Your task to perform on an android device: change alarm snooze length Image 0: 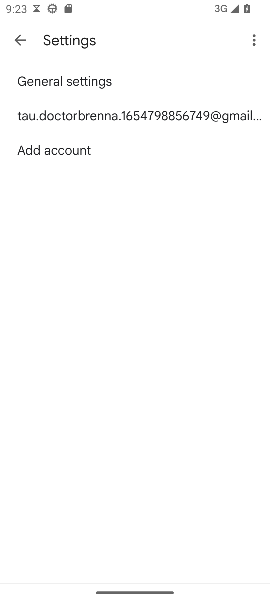
Step 0: press home button
Your task to perform on an android device: change alarm snooze length Image 1: 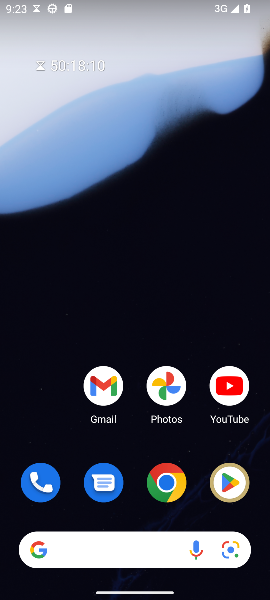
Step 1: drag from (50, 493) to (132, 4)
Your task to perform on an android device: change alarm snooze length Image 2: 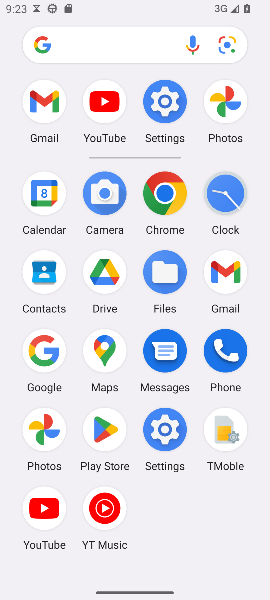
Step 2: click (215, 188)
Your task to perform on an android device: change alarm snooze length Image 3: 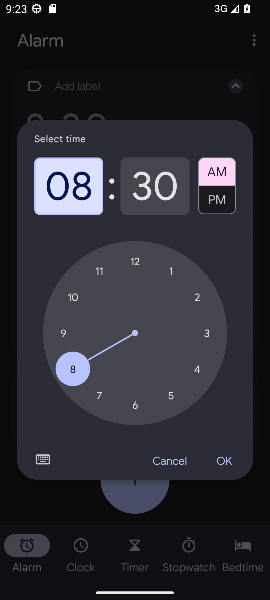
Step 3: click (166, 54)
Your task to perform on an android device: change alarm snooze length Image 4: 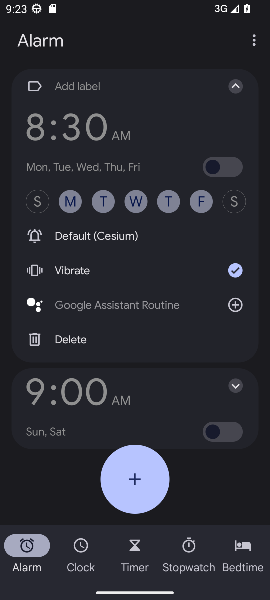
Step 4: click (248, 50)
Your task to perform on an android device: change alarm snooze length Image 5: 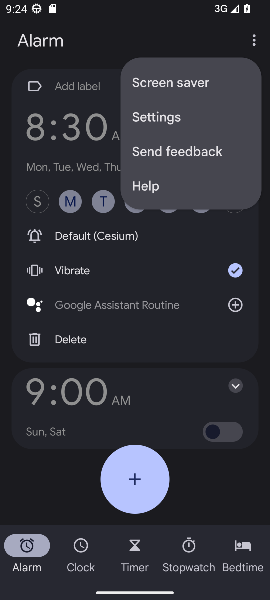
Step 5: click (152, 114)
Your task to perform on an android device: change alarm snooze length Image 6: 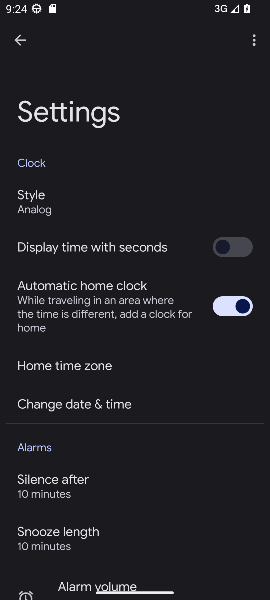
Step 6: drag from (62, 539) to (104, 214)
Your task to perform on an android device: change alarm snooze length Image 7: 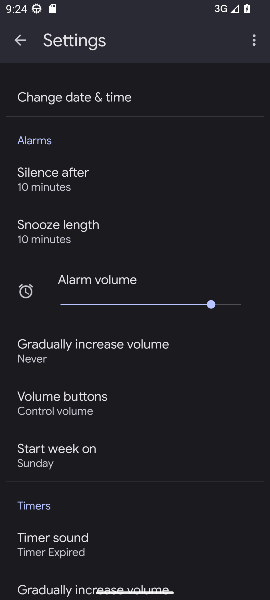
Step 7: click (54, 224)
Your task to perform on an android device: change alarm snooze length Image 8: 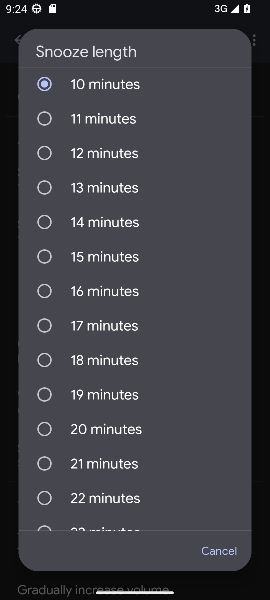
Step 8: click (107, 262)
Your task to perform on an android device: change alarm snooze length Image 9: 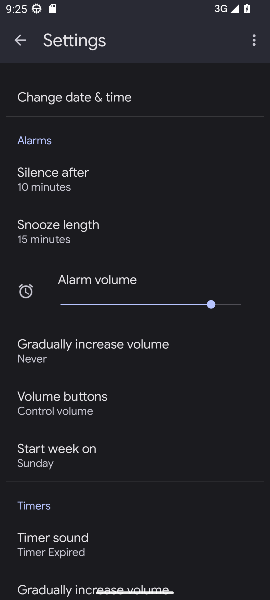
Step 9: task complete